Your task to perform on an android device: turn on location history Image 0: 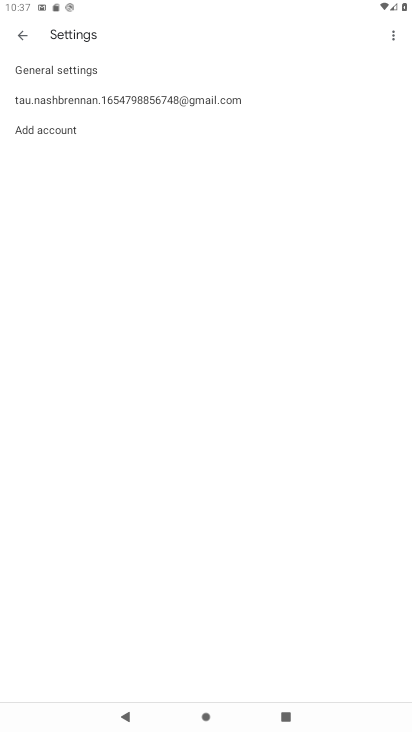
Step 0: press home button
Your task to perform on an android device: turn on location history Image 1: 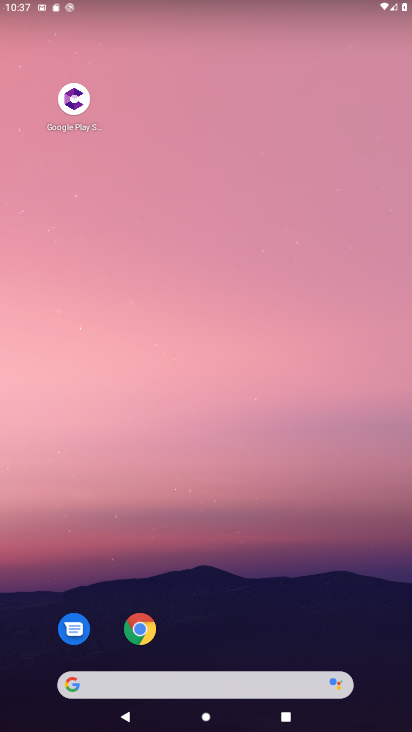
Step 1: drag from (306, 611) to (288, 47)
Your task to perform on an android device: turn on location history Image 2: 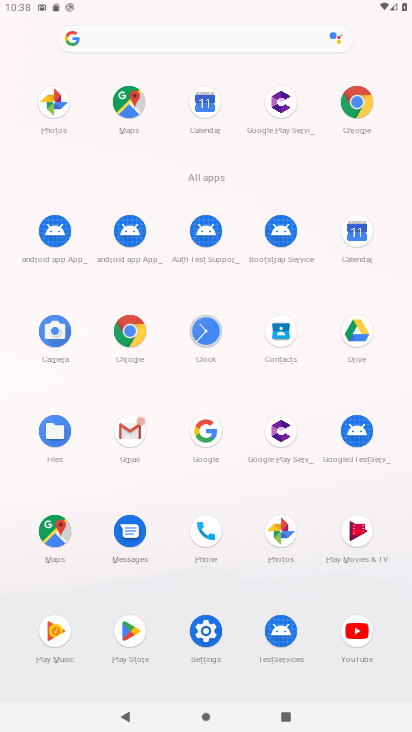
Step 2: click (202, 648)
Your task to perform on an android device: turn on location history Image 3: 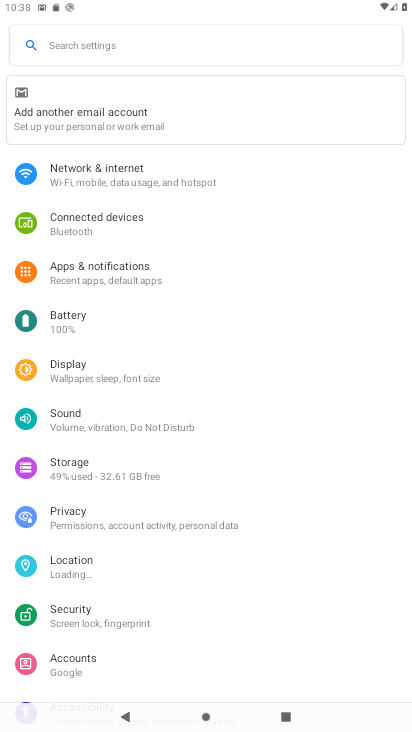
Step 3: click (68, 577)
Your task to perform on an android device: turn on location history Image 4: 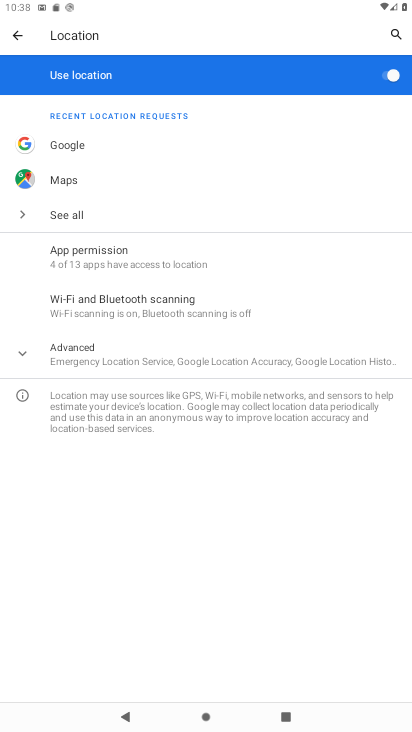
Step 4: click (114, 347)
Your task to perform on an android device: turn on location history Image 5: 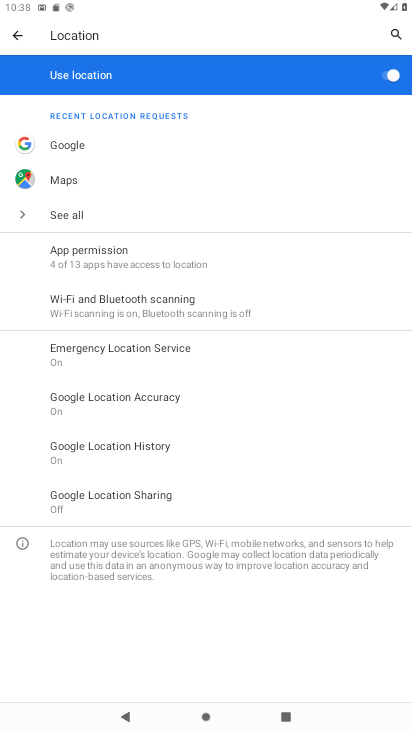
Step 5: click (118, 442)
Your task to perform on an android device: turn on location history Image 6: 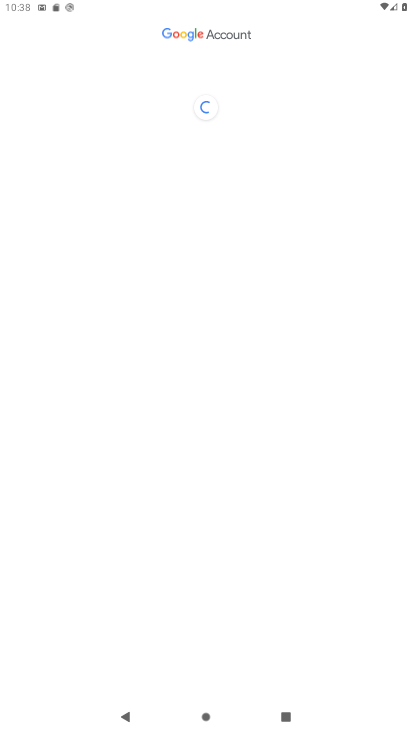
Step 6: task complete